Your task to perform on an android device: Open the calendar app, open the side menu, and click the "Day" option Image 0: 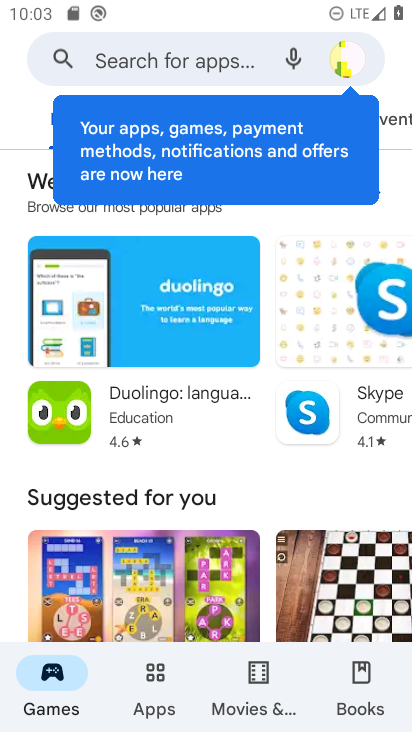
Step 0: press home button
Your task to perform on an android device: Open the calendar app, open the side menu, and click the "Day" option Image 1: 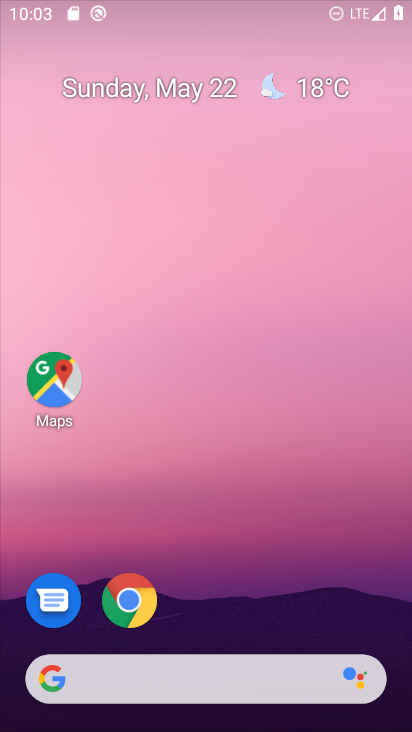
Step 1: drag from (395, 652) to (227, 1)
Your task to perform on an android device: Open the calendar app, open the side menu, and click the "Day" option Image 2: 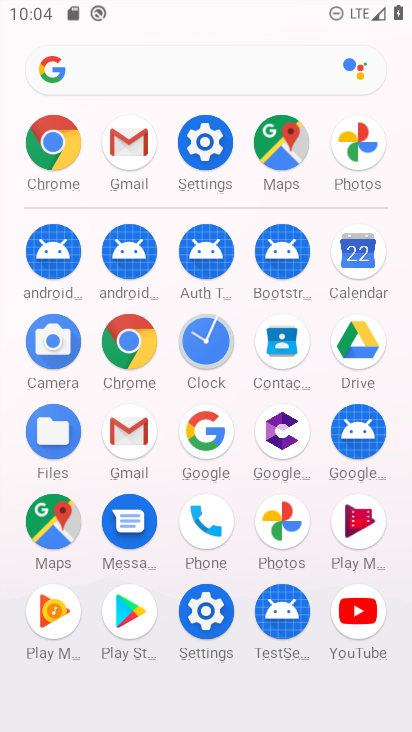
Step 2: click (351, 253)
Your task to perform on an android device: Open the calendar app, open the side menu, and click the "Day" option Image 3: 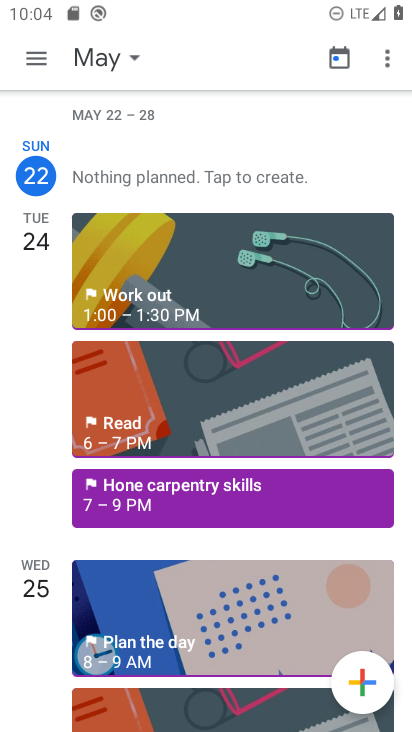
Step 3: click (27, 47)
Your task to perform on an android device: Open the calendar app, open the side menu, and click the "Day" option Image 4: 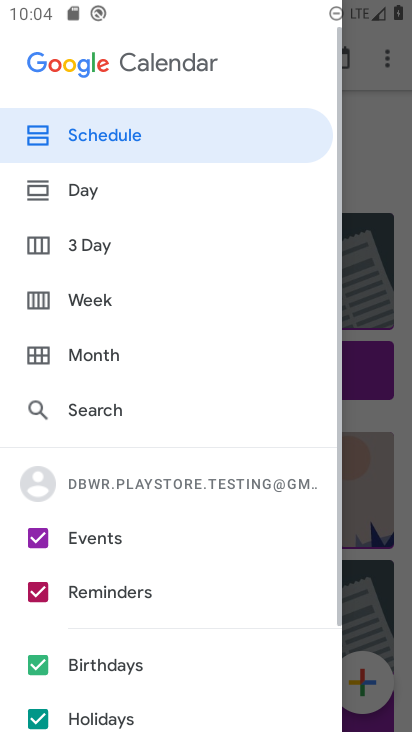
Step 4: click (106, 191)
Your task to perform on an android device: Open the calendar app, open the side menu, and click the "Day" option Image 5: 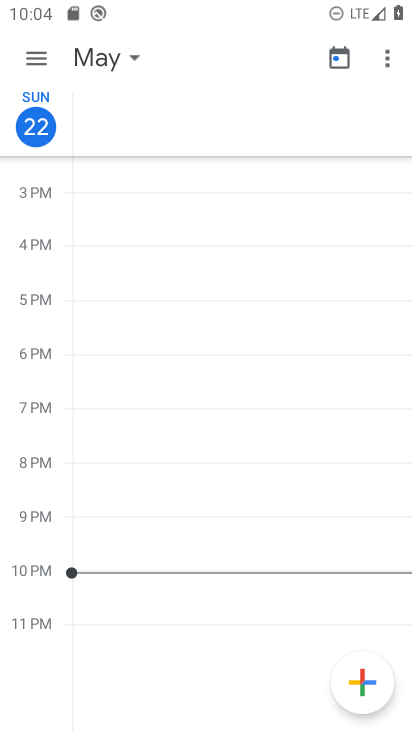
Step 5: task complete